Your task to perform on an android device: Open the phone app and click the voicemail tab. Image 0: 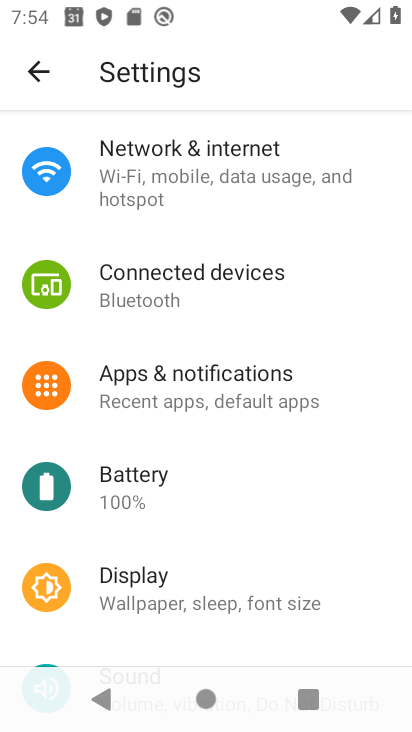
Step 0: press home button
Your task to perform on an android device: Open the phone app and click the voicemail tab. Image 1: 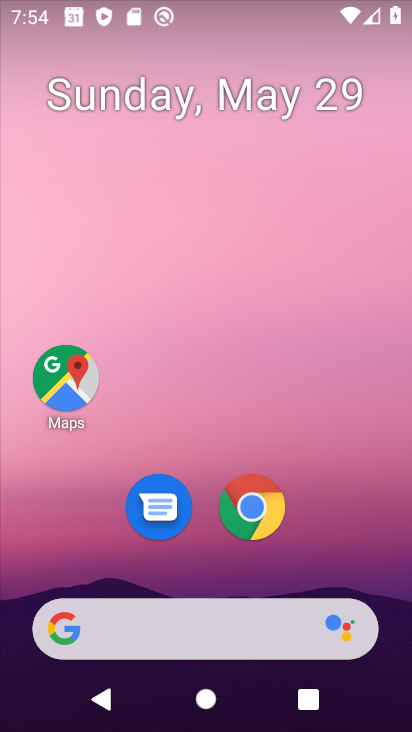
Step 1: drag from (355, 501) to (288, 176)
Your task to perform on an android device: Open the phone app and click the voicemail tab. Image 2: 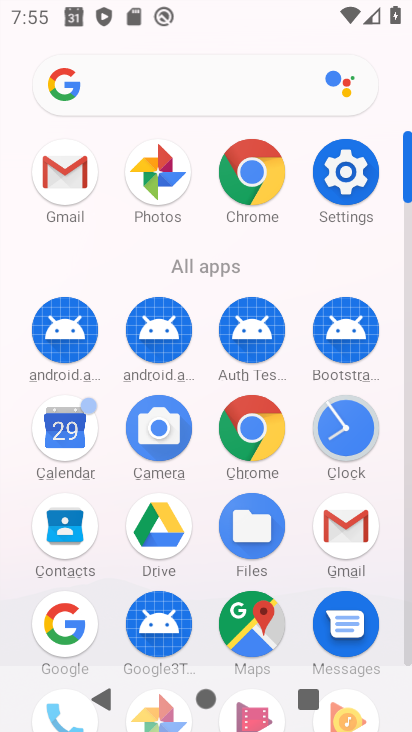
Step 2: drag from (197, 647) to (238, 416)
Your task to perform on an android device: Open the phone app and click the voicemail tab. Image 3: 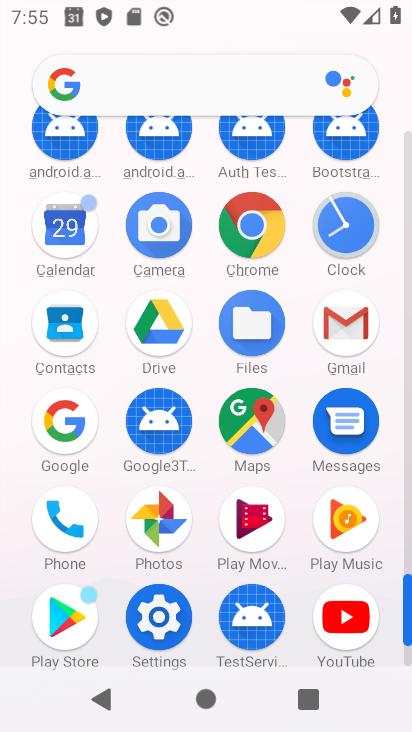
Step 3: click (72, 521)
Your task to perform on an android device: Open the phone app and click the voicemail tab. Image 4: 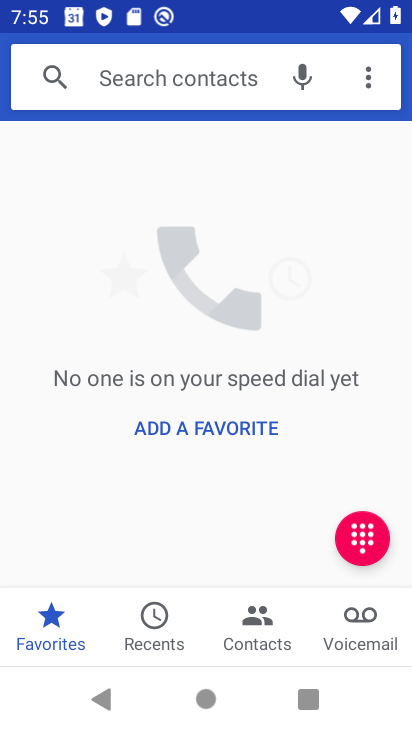
Step 4: click (348, 619)
Your task to perform on an android device: Open the phone app and click the voicemail tab. Image 5: 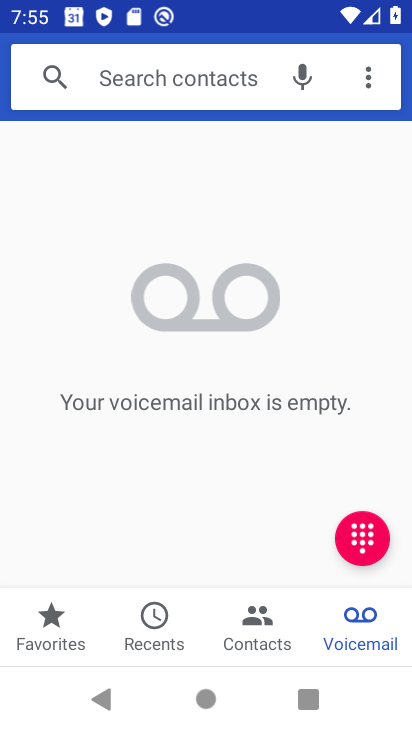
Step 5: task complete